Your task to perform on an android device: Open the map Image 0: 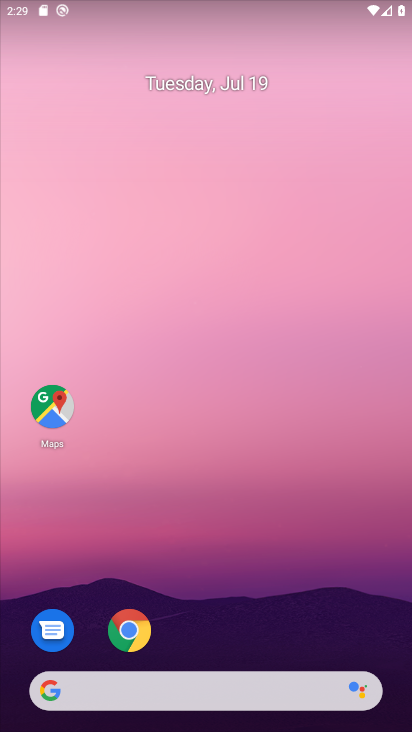
Step 0: click (53, 411)
Your task to perform on an android device: Open the map Image 1: 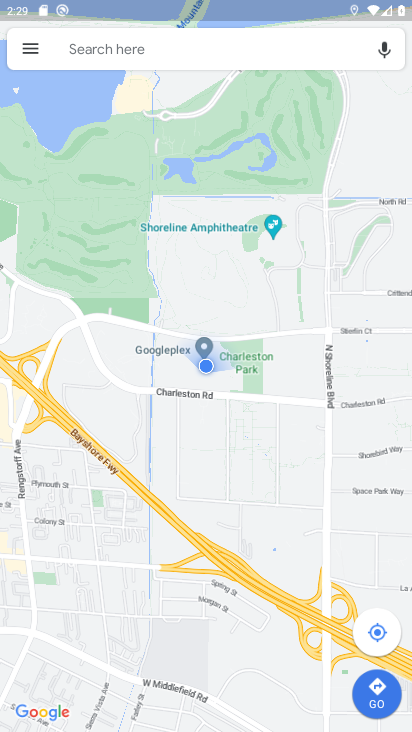
Step 1: task complete